Your task to perform on an android device: set an alarm Image 0: 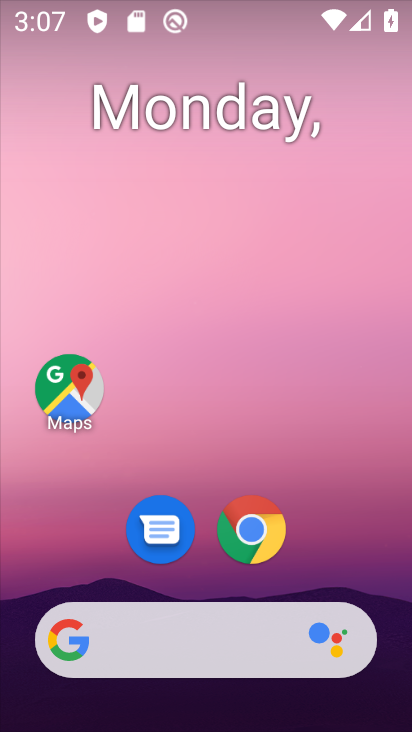
Step 0: drag from (207, 469) to (285, 1)
Your task to perform on an android device: set an alarm Image 1: 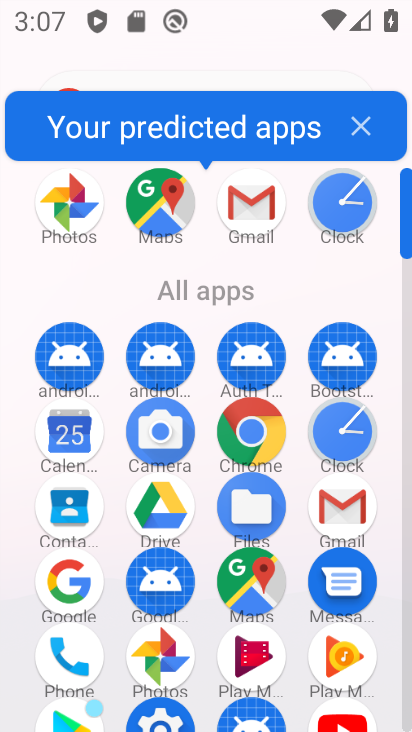
Step 1: click (343, 430)
Your task to perform on an android device: set an alarm Image 2: 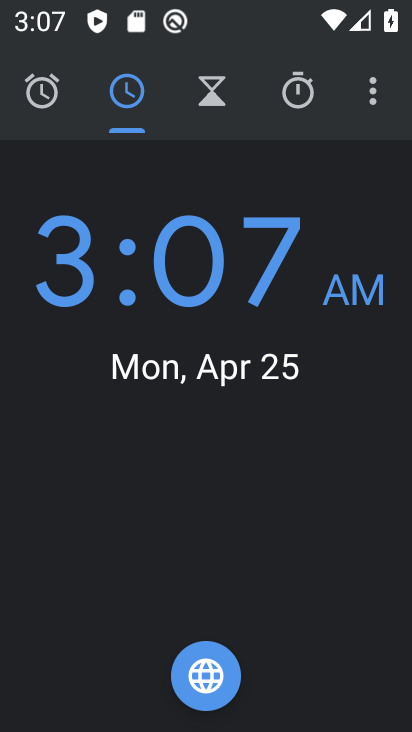
Step 2: click (21, 96)
Your task to perform on an android device: set an alarm Image 3: 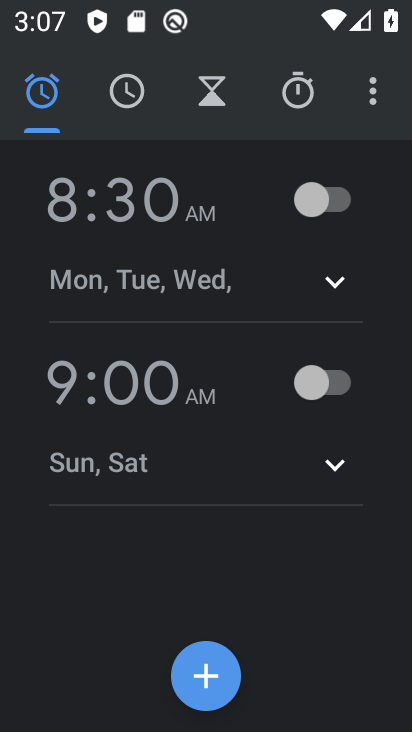
Step 3: click (140, 385)
Your task to perform on an android device: set an alarm Image 4: 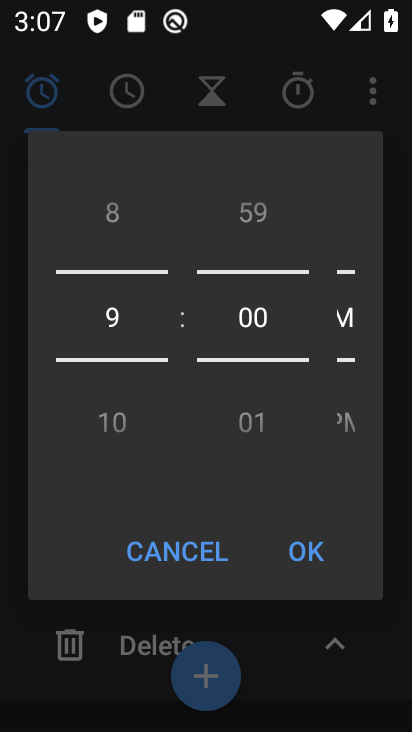
Step 4: drag from (108, 302) to (33, 686)
Your task to perform on an android device: set an alarm Image 5: 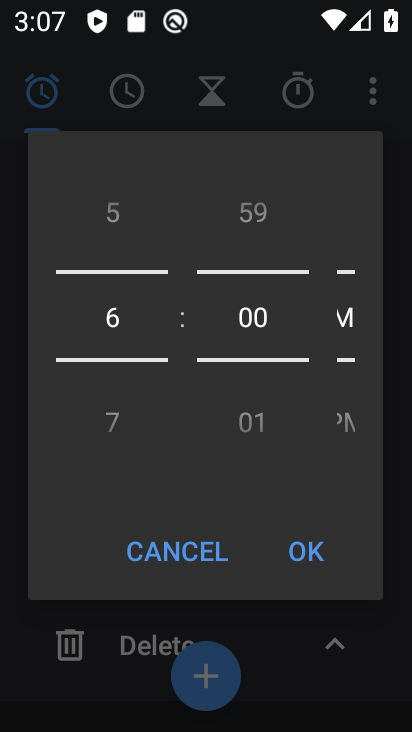
Step 5: drag from (337, 360) to (321, 466)
Your task to perform on an android device: set an alarm Image 6: 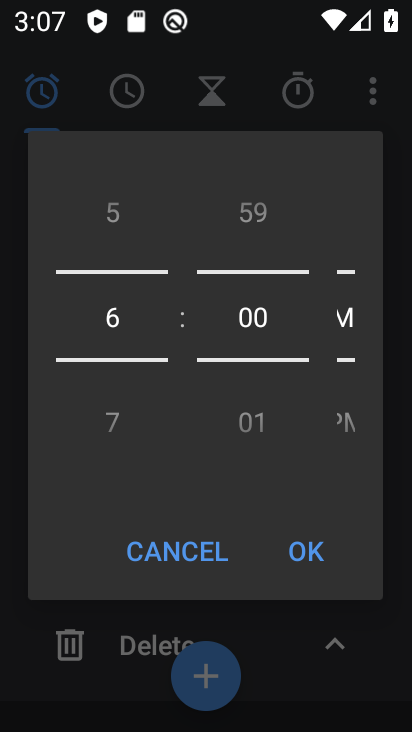
Step 6: drag from (346, 324) to (368, 27)
Your task to perform on an android device: set an alarm Image 7: 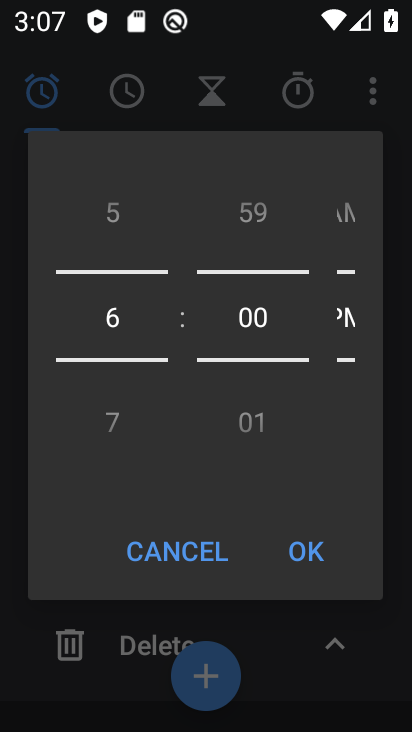
Step 7: click (318, 553)
Your task to perform on an android device: set an alarm Image 8: 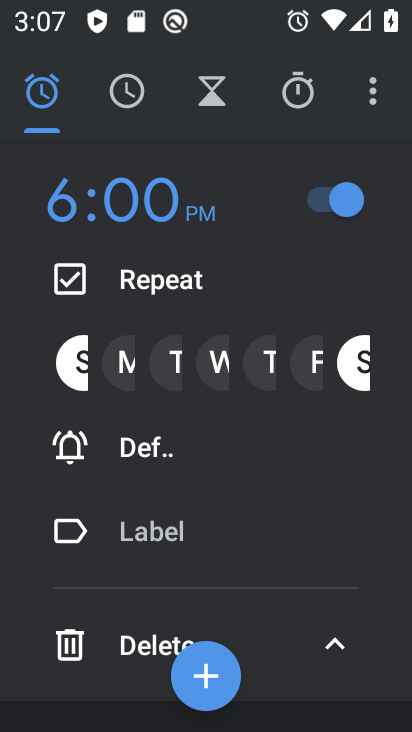
Step 8: click (123, 366)
Your task to perform on an android device: set an alarm Image 9: 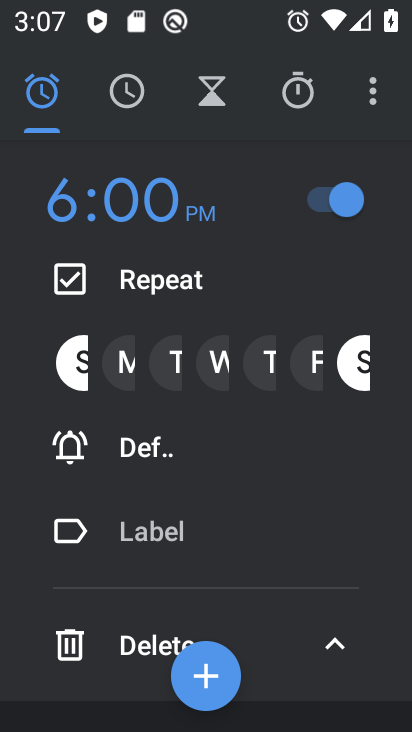
Step 9: click (166, 355)
Your task to perform on an android device: set an alarm Image 10: 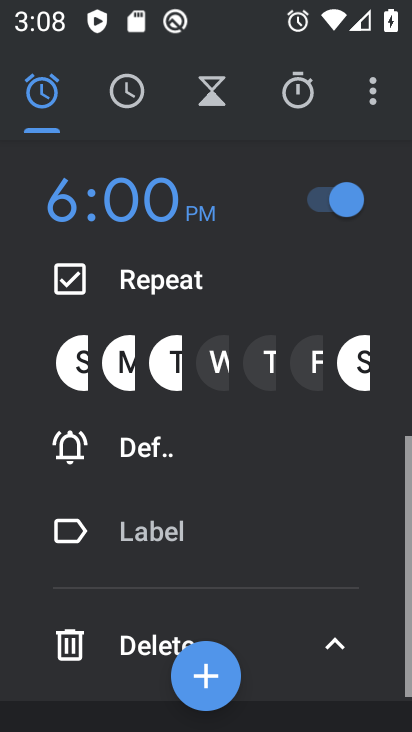
Step 10: click (142, 453)
Your task to perform on an android device: set an alarm Image 11: 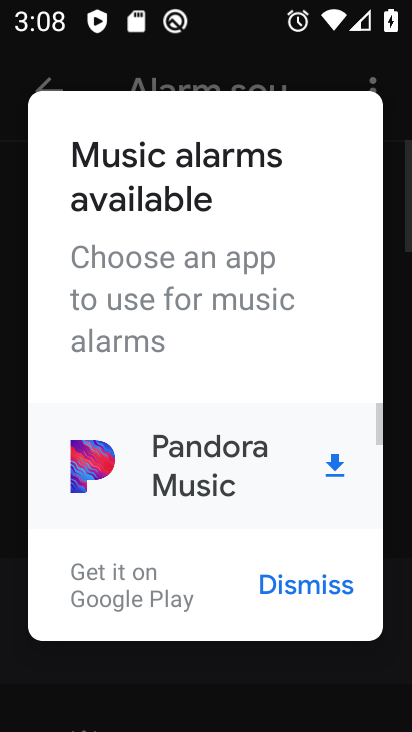
Step 11: click (309, 583)
Your task to perform on an android device: set an alarm Image 12: 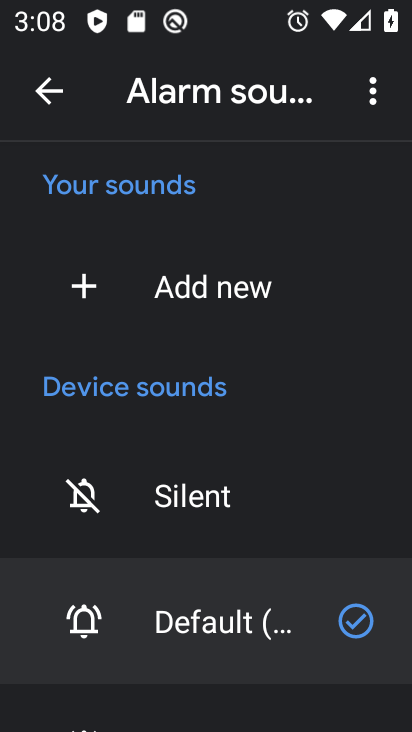
Step 12: drag from (181, 619) to (207, 321)
Your task to perform on an android device: set an alarm Image 13: 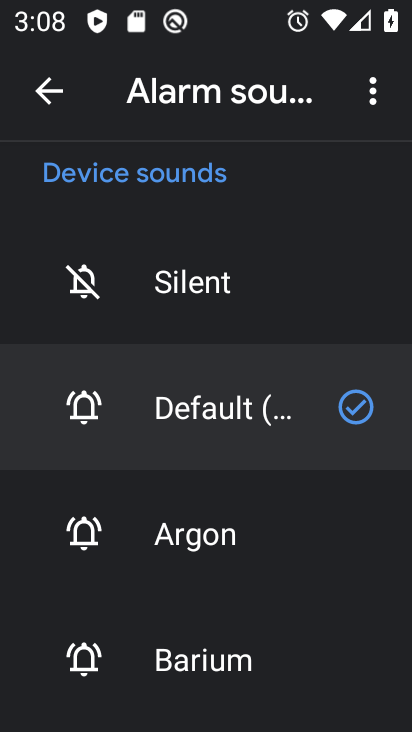
Step 13: click (186, 648)
Your task to perform on an android device: set an alarm Image 14: 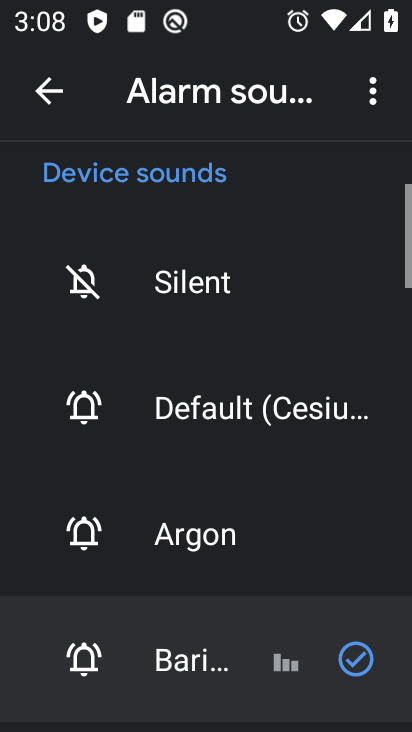
Step 14: click (51, 93)
Your task to perform on an android device: set an alarm Image 15: 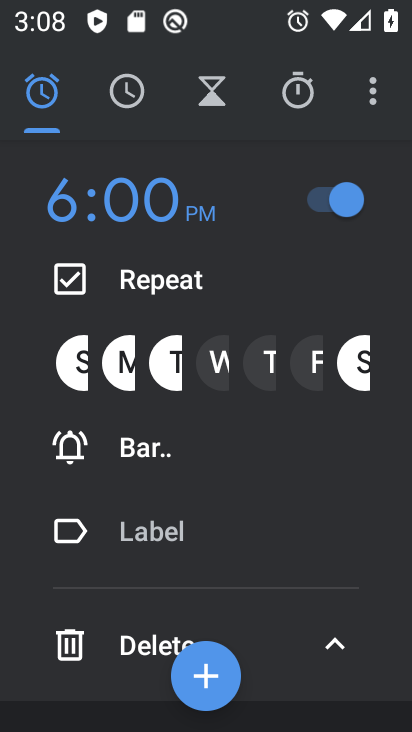
Step 15: click (329, 637)
Your task to perform on an android device: set an alarm Image 16: 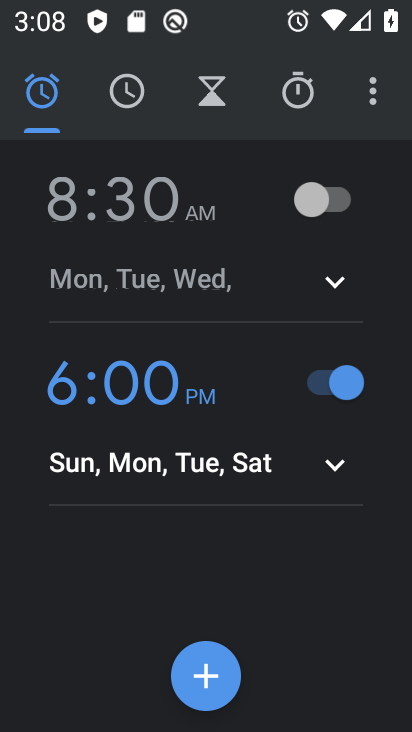
Step 16: task complete